Your task to perform on an android device: Go to Reddit.com Image 0: 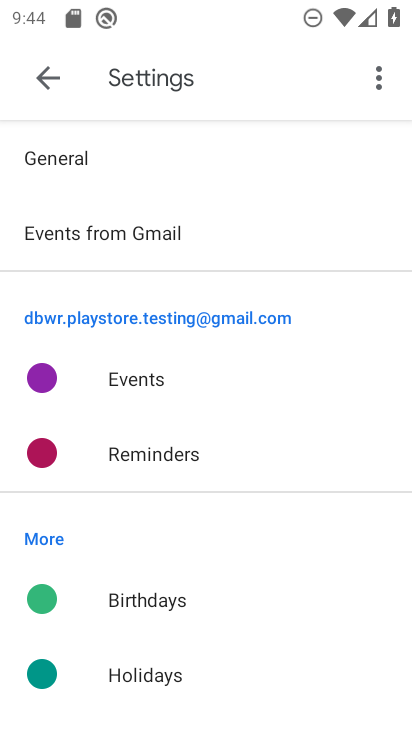
Step 0: press home button
Your task to perform on an android device: Go to Reddit.com Image 1: 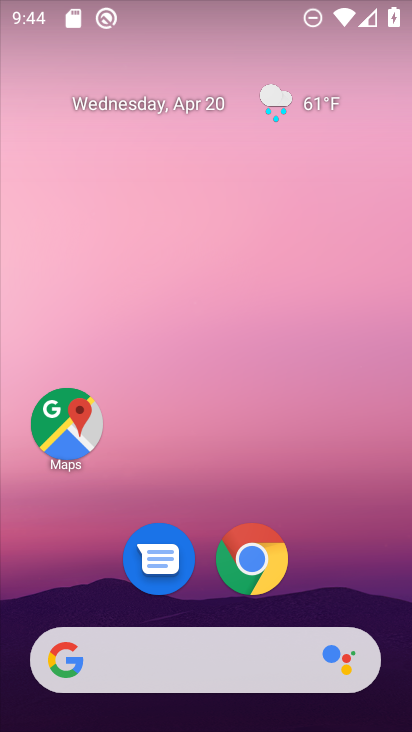
Step 1: click (247, 555)
Your task to perform on an android device: Go to Reddit.com Image 2: 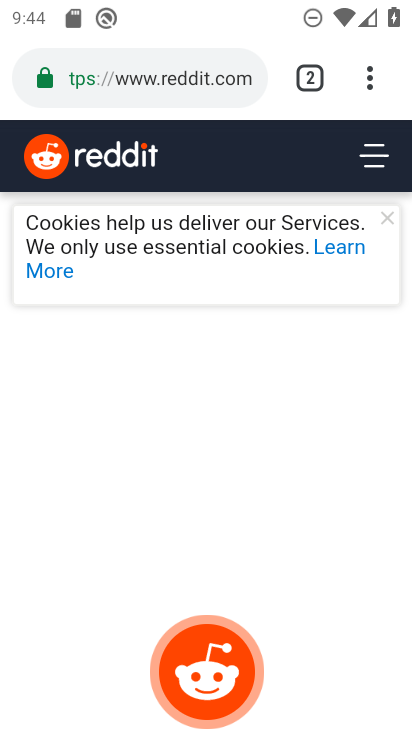
Step 2: task complete